Your task to perform on an android device: Open CNN.com Image 0: 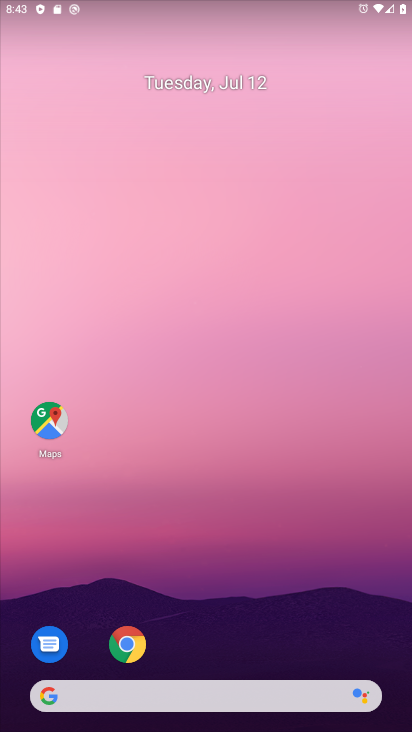
Step 0: click (97, 696)
Your task to perform on an android device: Open CNN.com Image 1: 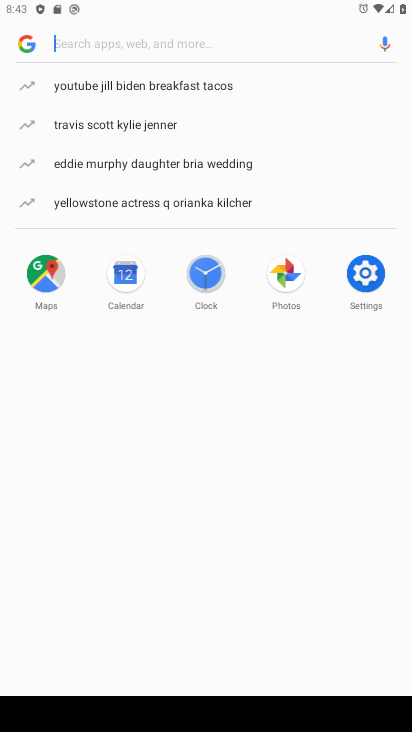
Step 1: click (89, 30)
Your task to perform on an android device: Open CNN.com Image 2: 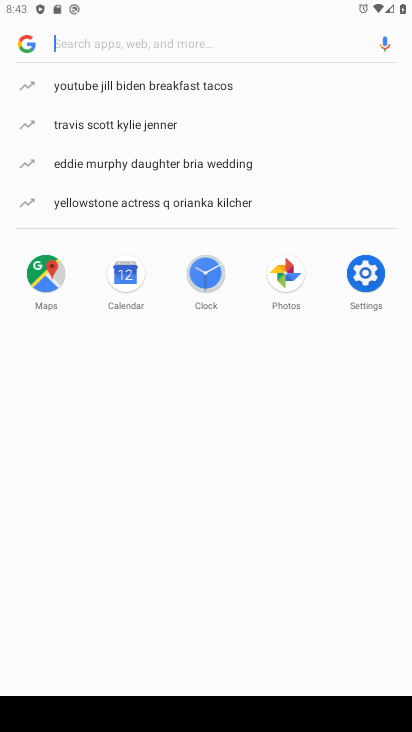
Step 2: type "CNN.com"
Your task to perform on an android device: Open CNN.com Image 3: 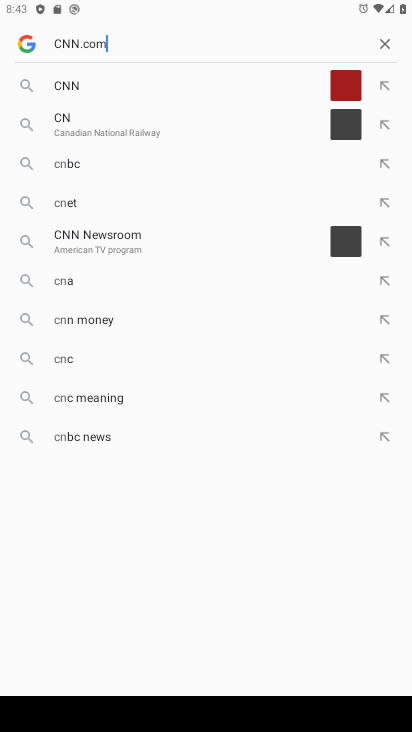
Step 3: type ""
Your task to perform on an android device: Open CNN.com Image 4: 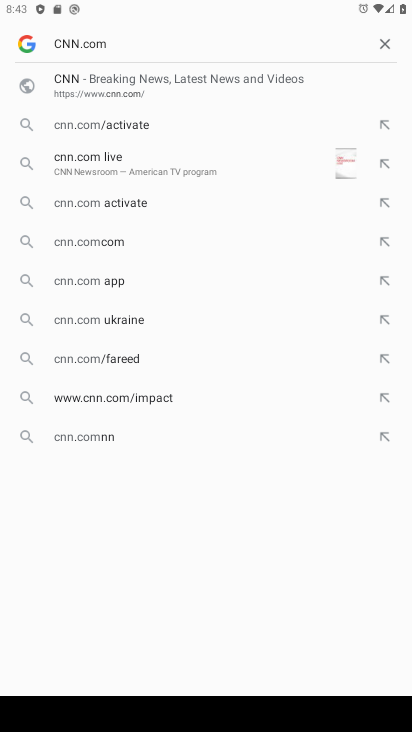
Step 4: click (82, 76)
Your task to perform on an android device: Open CNN.com Image 5: 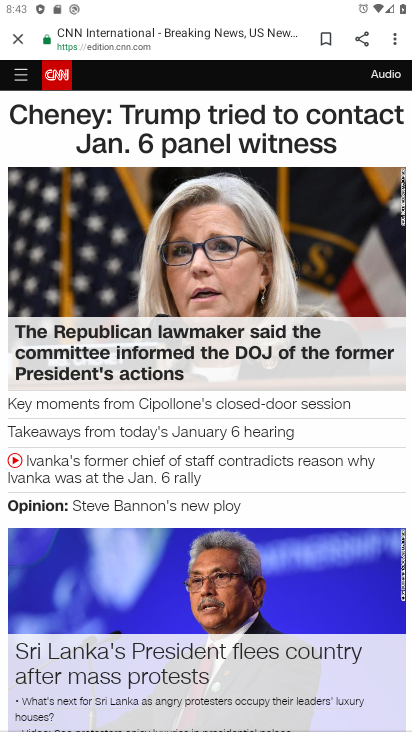
Step 5: task complete